Your task to perform on an android device: Search for vegetarian restaurants on Maps Image 0: 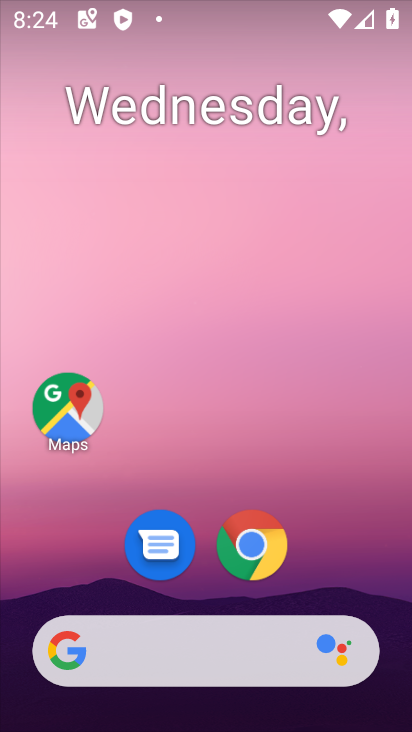
Step 0: click (82, 416)
Your task to perform on an android device: Search for vegetarian restaurants on Maps Image 1: 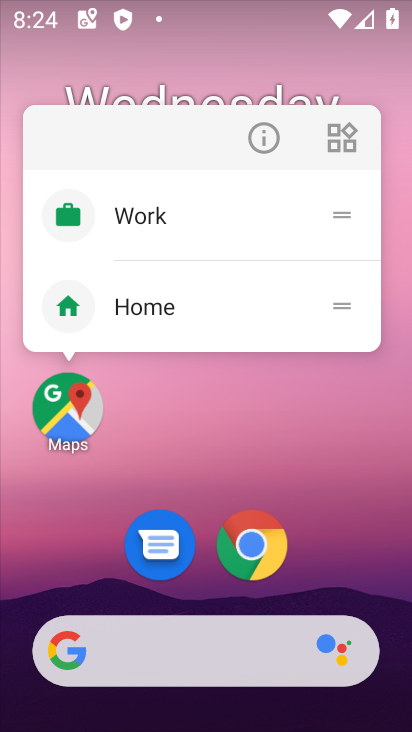
Step 1: click (72, 410)
Your task to perform on an android device: Search for vegetarian restaurants on Maps Image 2: 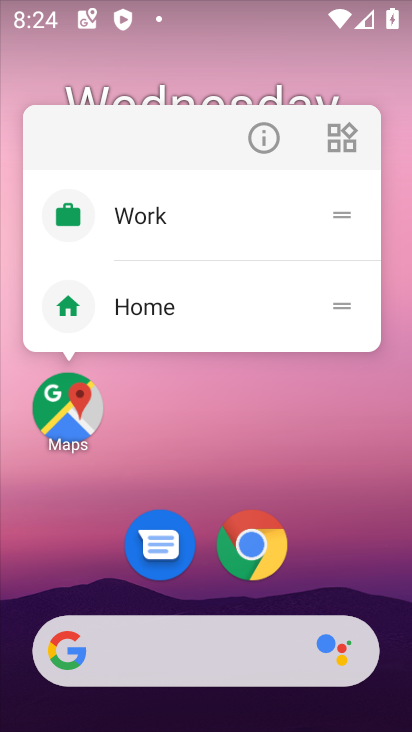
Step 2: click (74, 404)
Your task to perform on an android device: Search for vegetarian restaurants on Maps Image 3: 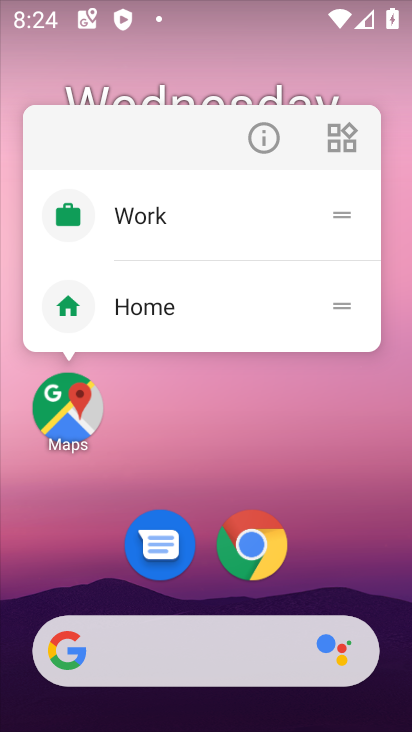
Step 3: click (71, 409)
Your task to perform on an android device: Search for vegetarian restaurants on Maps Image 4: 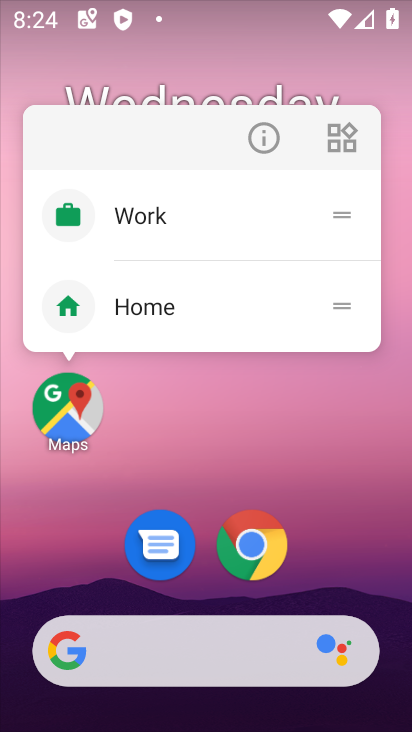
Step 4: click (70, 416)
Your task to perform on an android device: Search for vegetarian restaurants on Maps Image 5: 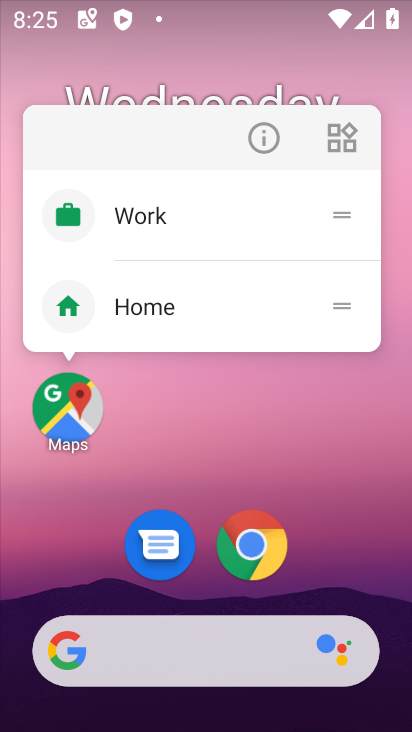
Step 5: click (67, 408)
Your task to perform on an android device: Search for vegetarian restaurants on Maps Image 6: 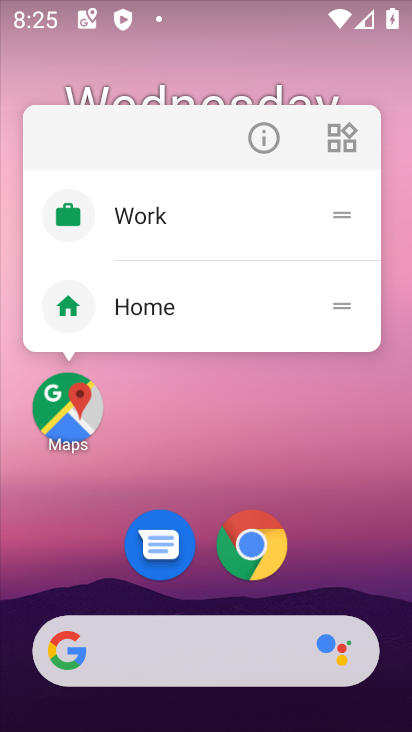
Step 6: click (67, 408)
Your task to perform on an android device: Search for vegetarian restaurants on Maps Image 7: 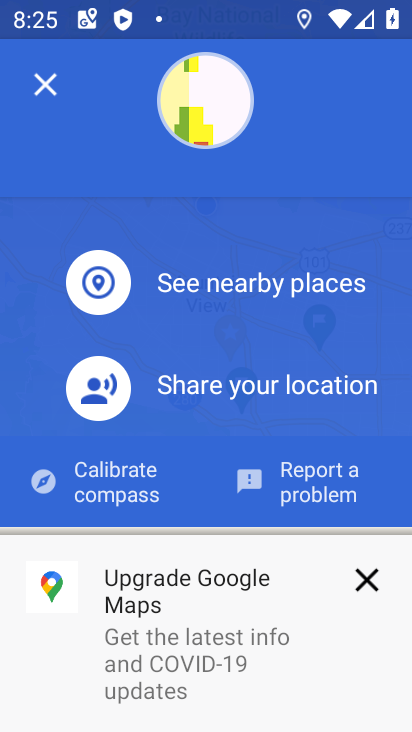
Step 7: click (45, 81)
Your task to perform on an android device: Search for vegetarian restaurants on Maps Image 8: 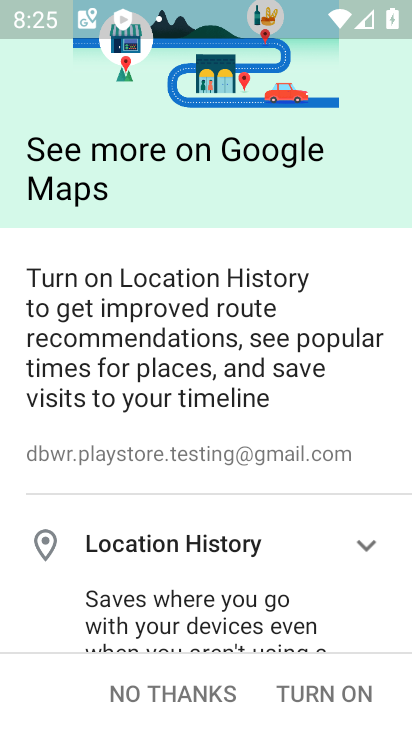
Step 8: click (206, 689)
Your task to perform on an android device: Search for vegetarian restaurants on Maps Image 9: 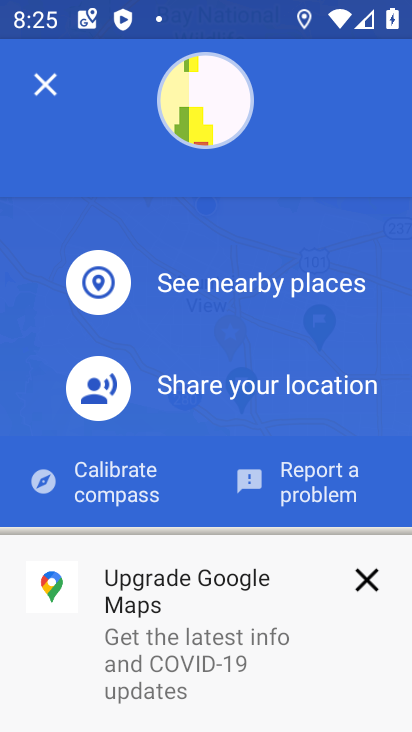
Step 9: click (364, 587)
Your task to perform on an android device: Search for vegetarian restaurants on Maps Image 10: 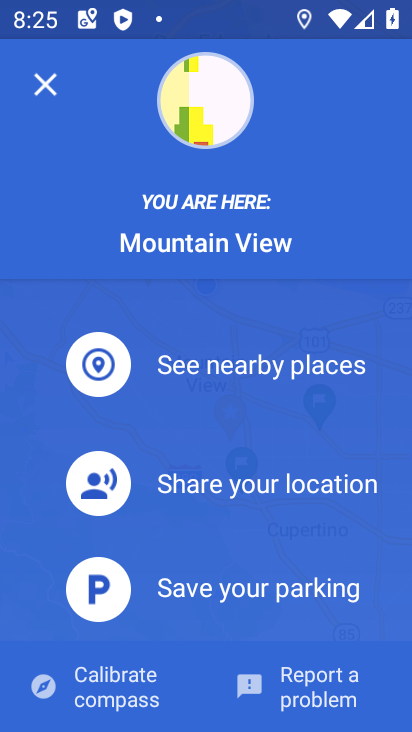
Step 10: click (51, 69)
Your task to perform on an android device: Search for vegetarian restaurants on Maps Image 11: 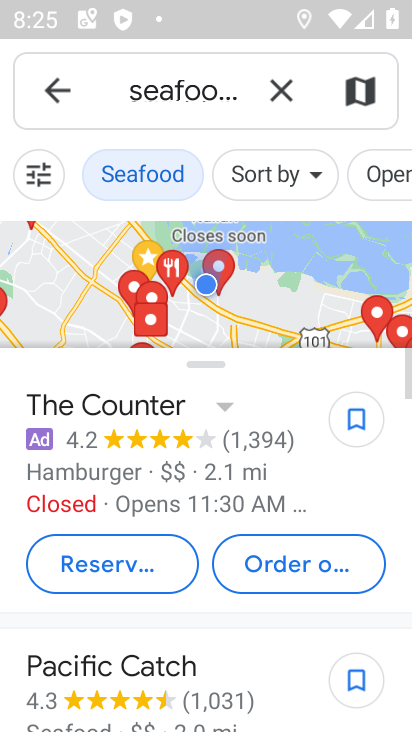
Step 11: click (296, 93)
Your task to perform on an android device: Search for vegetarian restaurants on Maps Image 12: 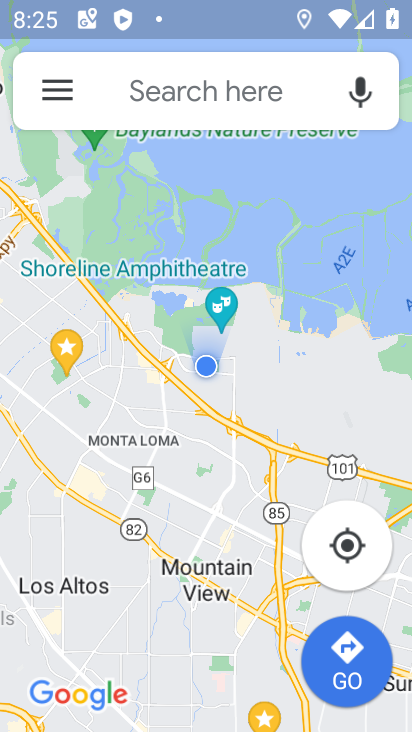
Step 12: click (177, 92)
Your task to perform on an android device: Search for vegetarian restaurants on Maps Image 13: 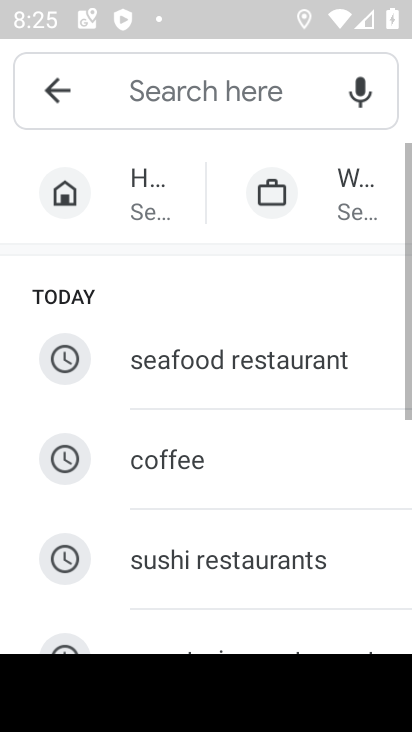
Step 13: drag from (189, 566) to (288, 95)
Your task to perform on an android device: Search for vegetarian restaurants on Maps Image 14: 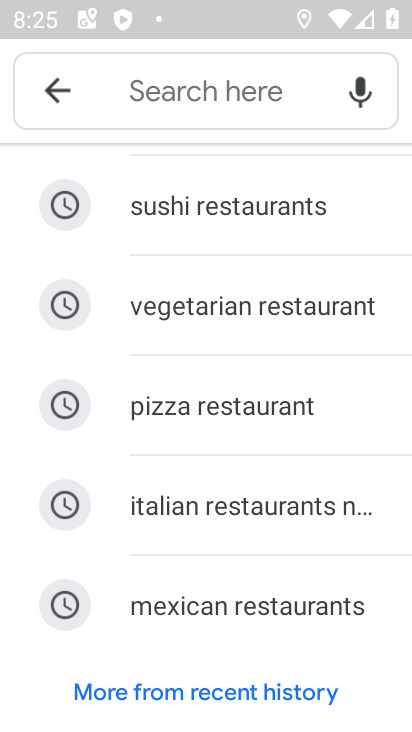
Step 14: click (231, 300)
Your task to perform on an android device: Search for vegetarian restaurants on Maps Image 15: 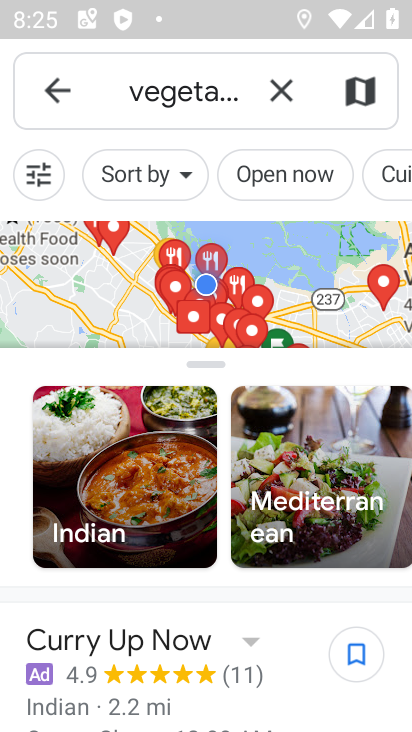
Step 15: task complete